Your task to perform on an android device: Go to location settings Image 0: 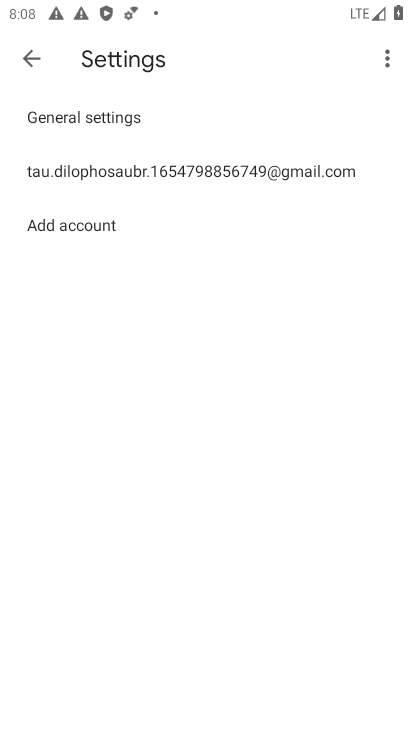
Step 0: press home button
Your task to perform on an android device: Go to location settings Image 1: 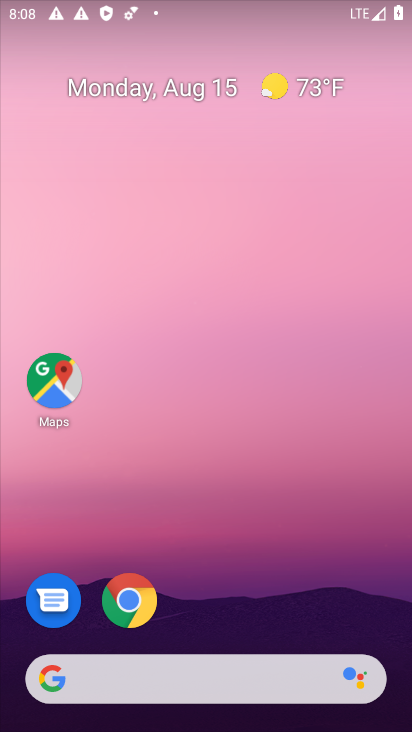
Step 1: drag from (216, 598) to (221, 85)
Your task to perform on an android device: Go to location settings Image 2: 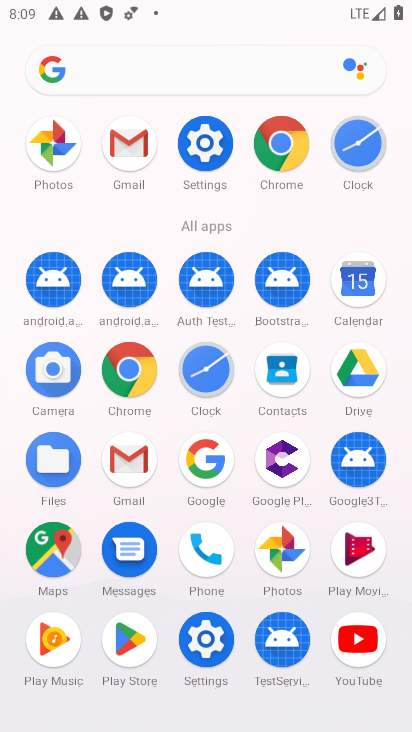
Step 2: click (210, 140)
Your task to perform on an android device: Go to location settings Image 3: 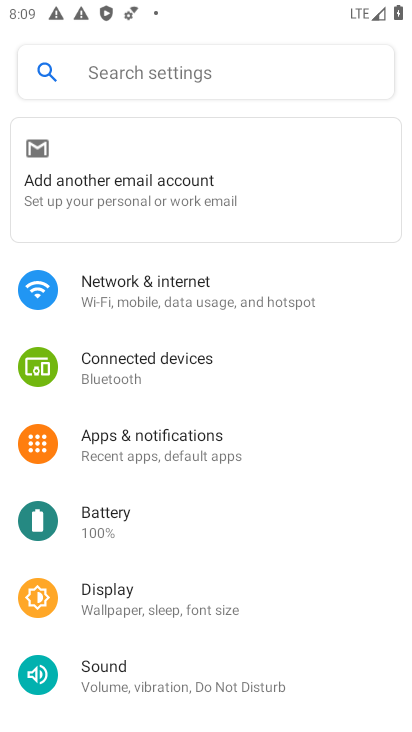
Step 3: drag from (147, 627) to (147, 268)
Your task to perform on an android device: Go to location settings Image 4: 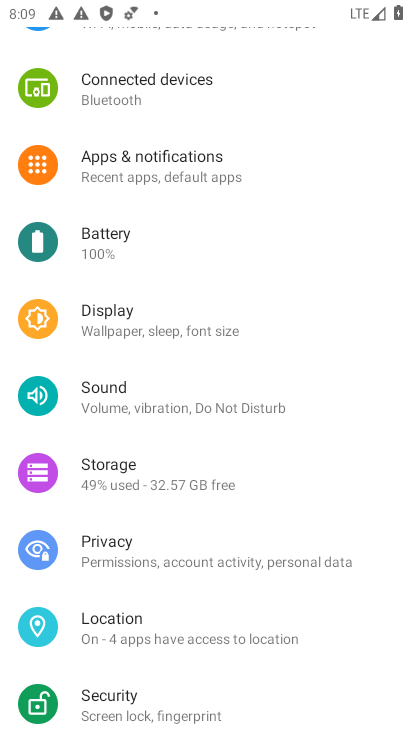
Step 4: click (117, 627)
Your task to perform on an android device: Go to location settings Image 5: 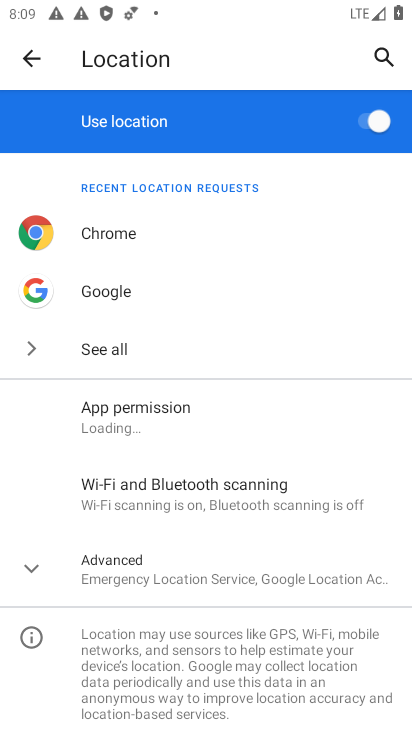
Step 5: task complete